Your task to perform on an android device: open a bookmark in the chrome app Image 0: 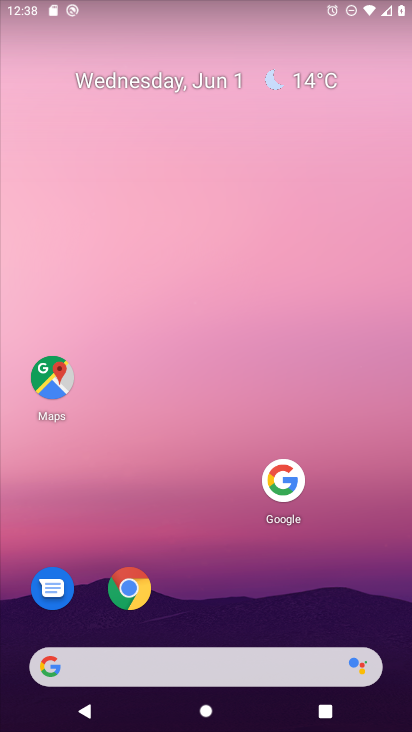
Step 0: press home button
Your task to perform on an android device: open a bookmark in the chrome app Image 1: 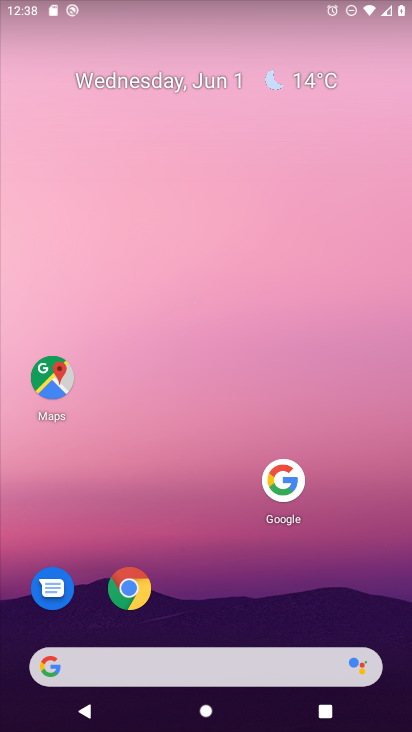
Step 1: click (121, 593)
Your task to perform on an android device: open a bookmark in the chrome app Image 2: 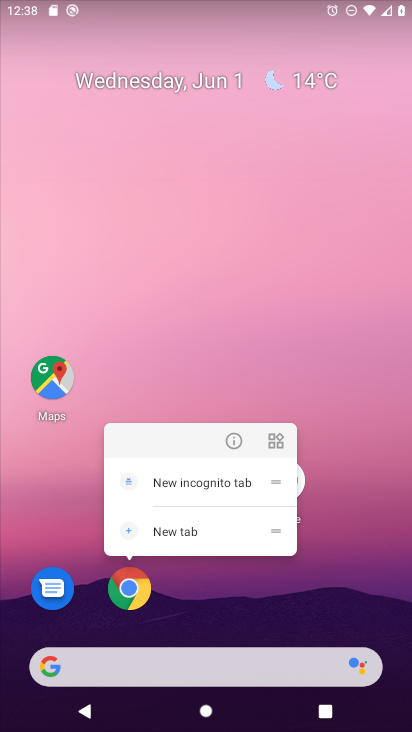
Step 2: click (134, 589)
Your task to perform on an android device: open a bookmark in the chrome app Image 3: 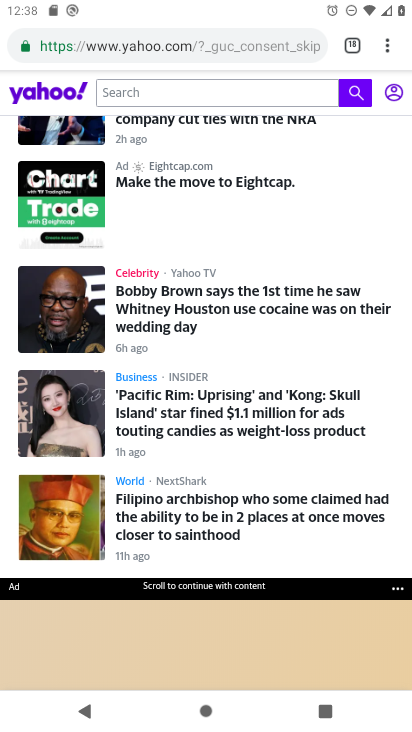
Step 3: task complete